Your task to perform on an android device: change notification settings in the gmail app Image 0: 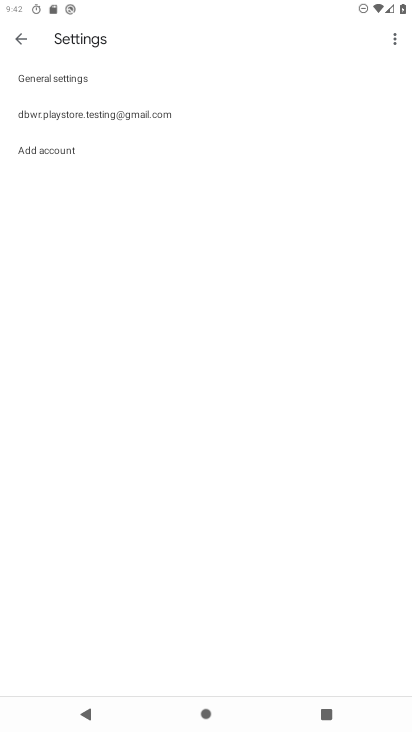
Step 0: press home button
Your task to perform on an android device: change notification settings in the gmail app Image 1: 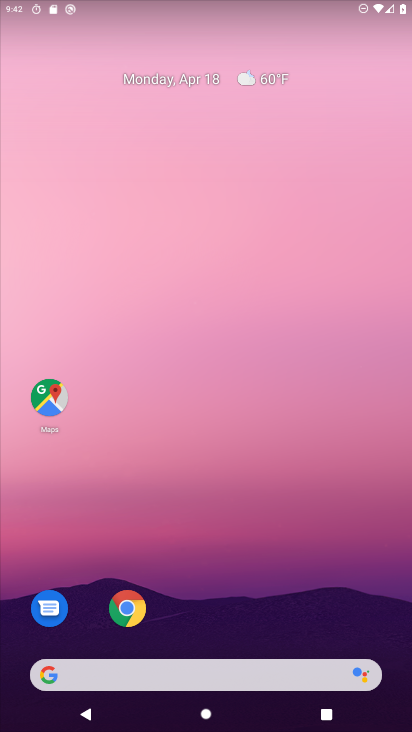
Step 1: drag from (353, 507) to (306, 164)
Your task to perform on an android device: change notification settings in the gmail app Image 2: 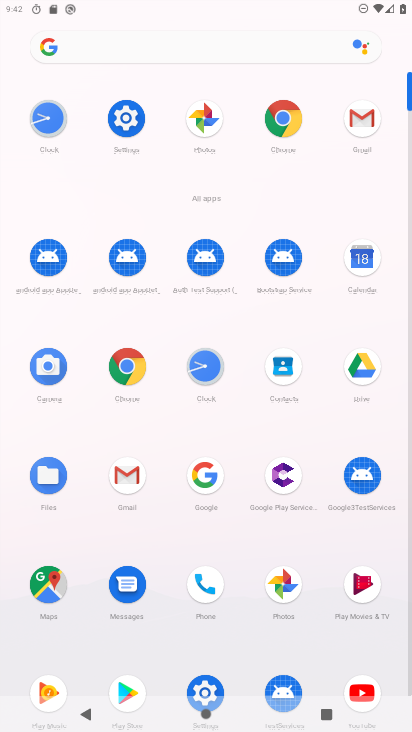
Step 2: click (123, 482)
Your task to perform on an android device: change notification settings in the gmail app Image 3: 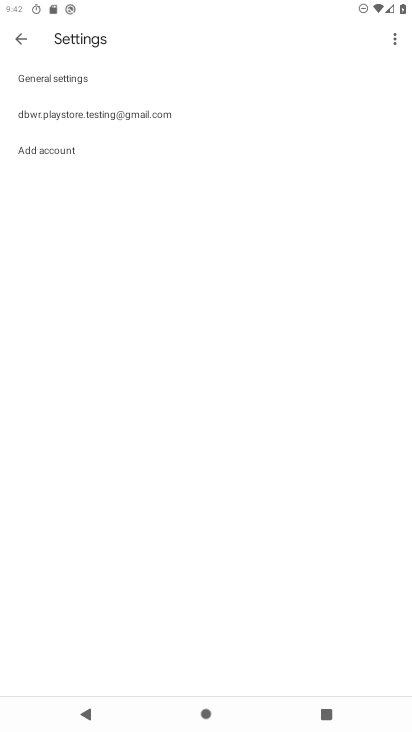
Step 3: click (61, 79)
Your task to perform on an android device: change notification settings in the gmail app Image 4: 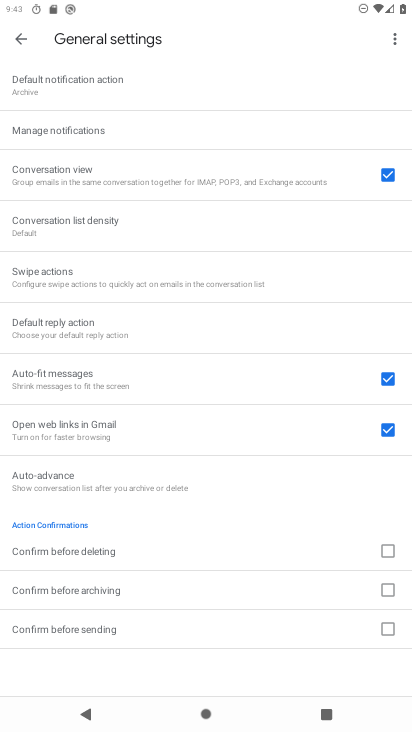
Step 4: click (84, 128)
Your task to perform on an android device: change notification settings in the gmail app Image 5: 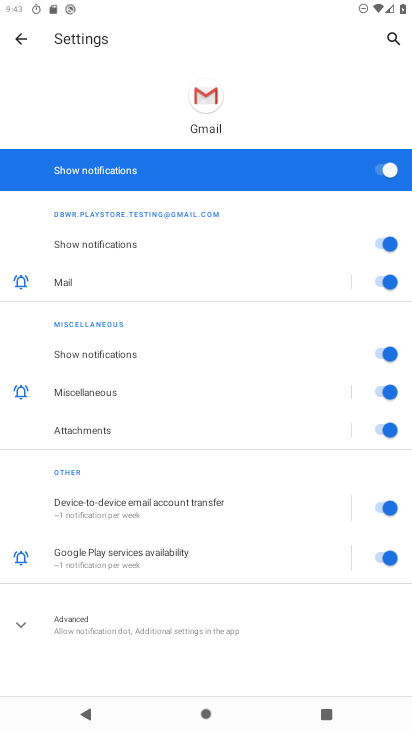
Step 5: click (376, 347)
Your task to perform on an android device: change notification settings in the gmail app Image 6: 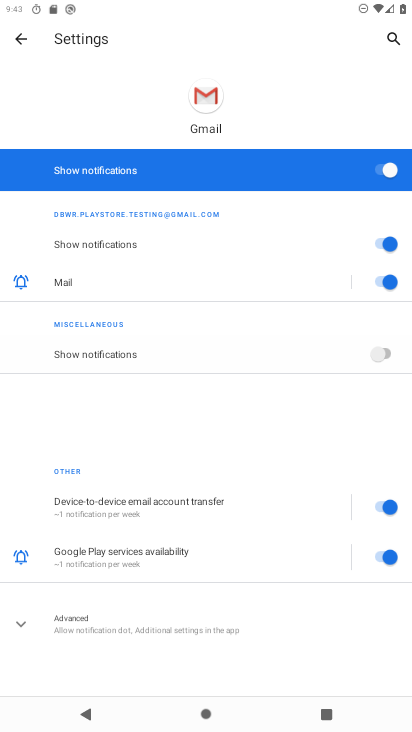
Step 6: click (378, 389)
Your task to perform on an android device: change notification settings in the gmail app Image 7: 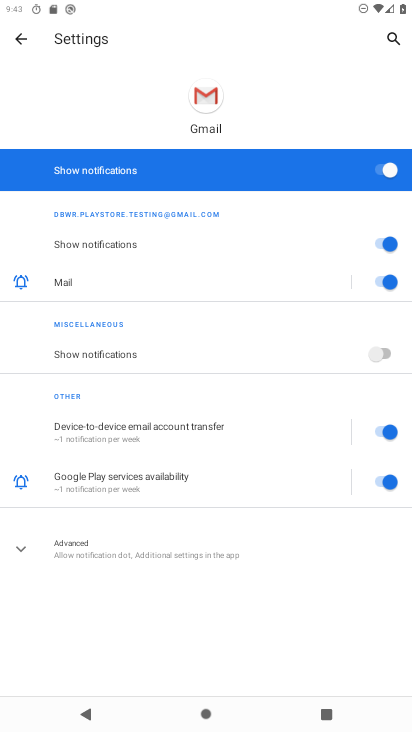
Step 7: click (377, 428)
Your task to perform on an android device: change notification settings in the gmail app Image 8: 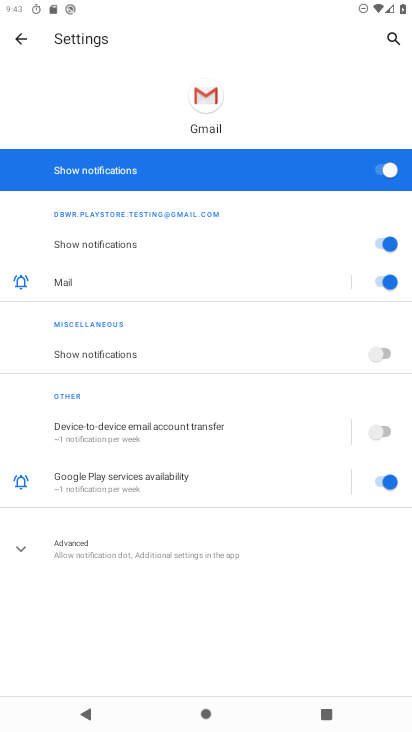
Step 8: click (378, 484)
Your task to perform on an android device: change notification settings in the gmail app Image 9: 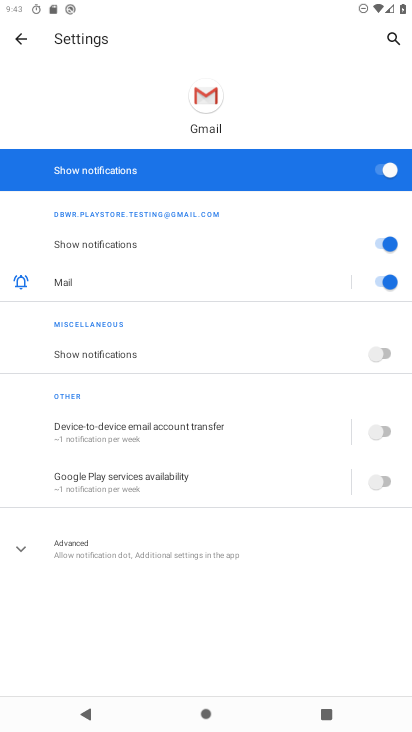
Step 9: task complete